Your task to perform on an android device: turn on data saver in the chrome app Image 0: 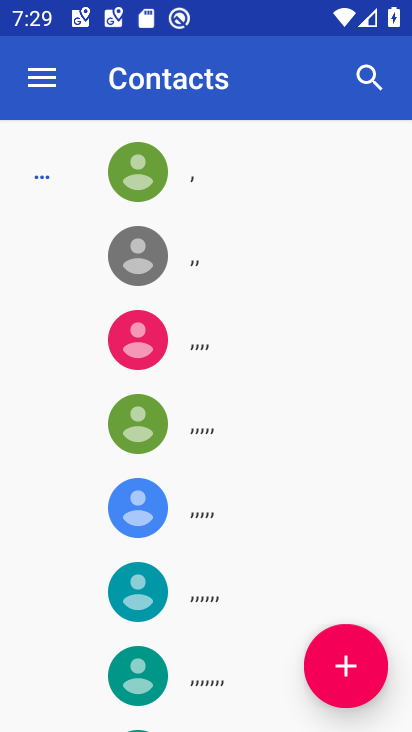
Step 0: press home button
Your task to perform on an android device: turn on data saver in the chrome app Image 1: 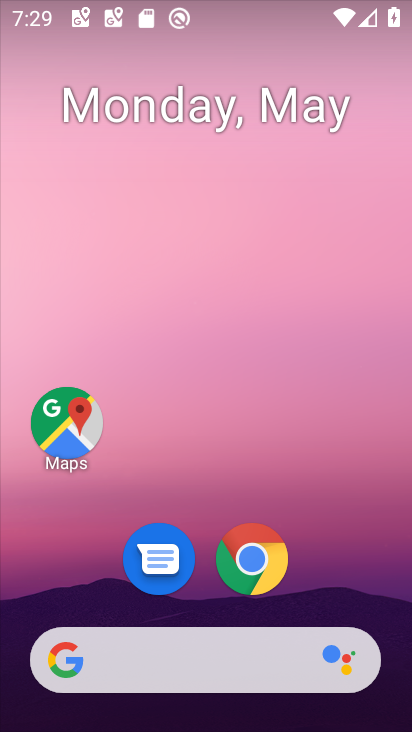
Step 1: drag from (388, 636) to (367, 159)
Your task to perform on an android device: turn on data saver in the chrome app Image 2: 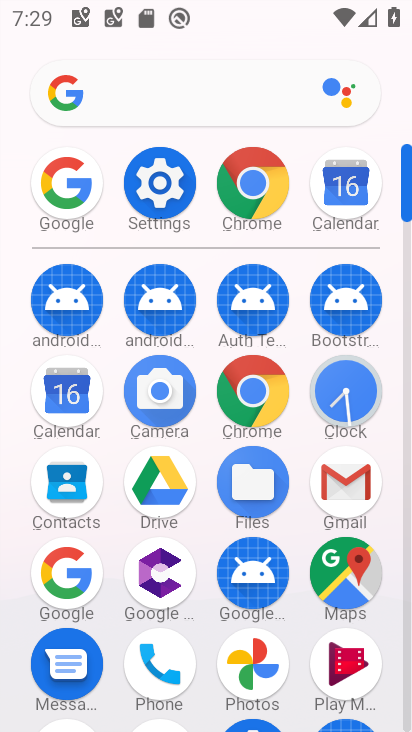
Step 2: click (243, 174)
Your task to perform on an android device: turn on data saver in the chrome app Image 3: 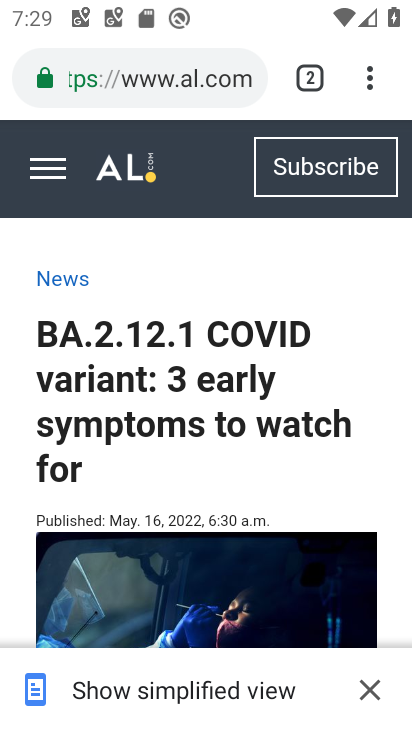
Step 3: press back button
Your task to perform on an android device: turn on data saver in the chrome app Image 4: 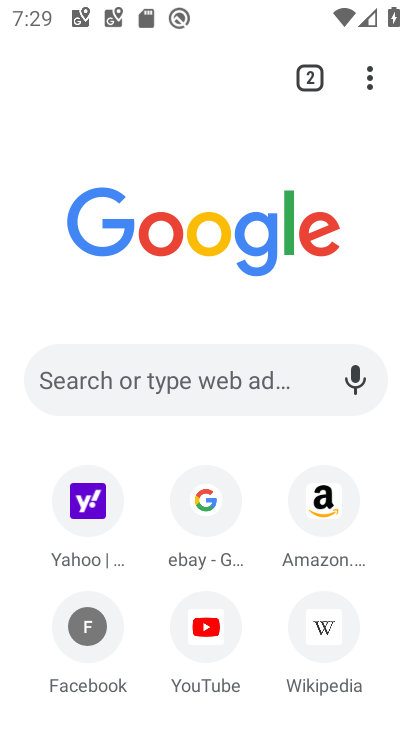
Step 4: click (367, 61)
Your task to perform on an android device: turn on data saver in the chrome app Image 5: 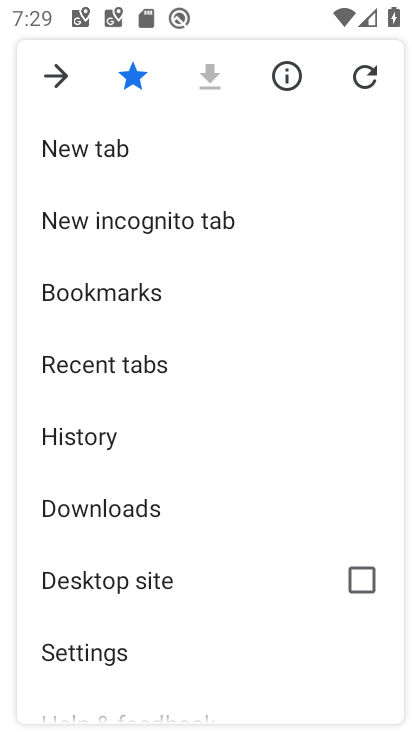
Step 5: click (86, 654)
Your task to perform on an android device: turn on data saver in the chrome app Image 6: 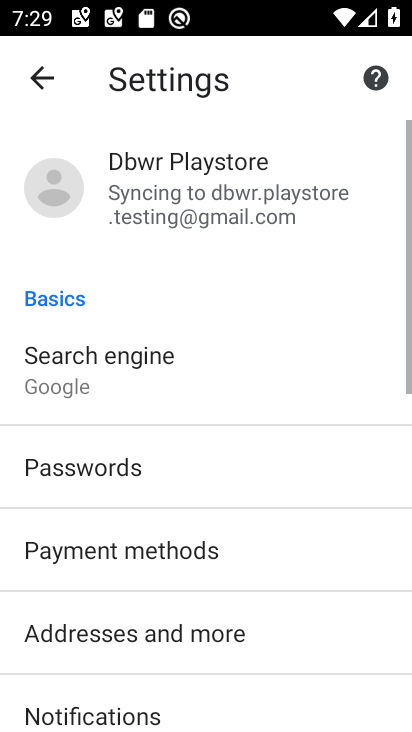
Step 6: drag from (86, 654) to (144, 100)
Your task to perform on an android device: turn on data saver in the chrome app Image 7: 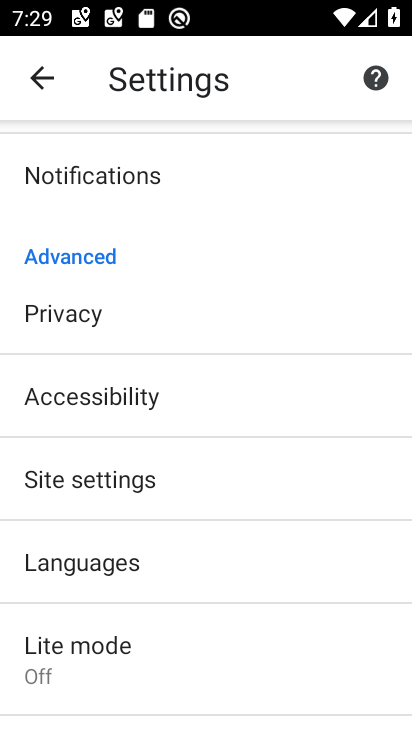
Step 7: click (108, 667)
Your task to perform on an android device: turn on data saver in the chrome app Image 8: 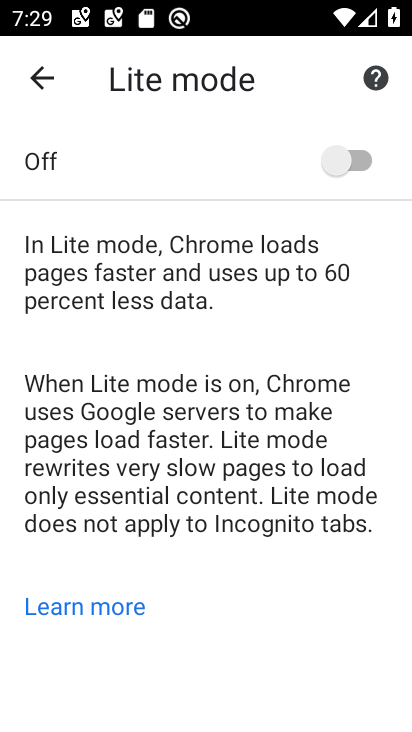
Step 8: click (375, 159)
Your task to perform on an android device: turn on data saver in the chrome app Image 9: 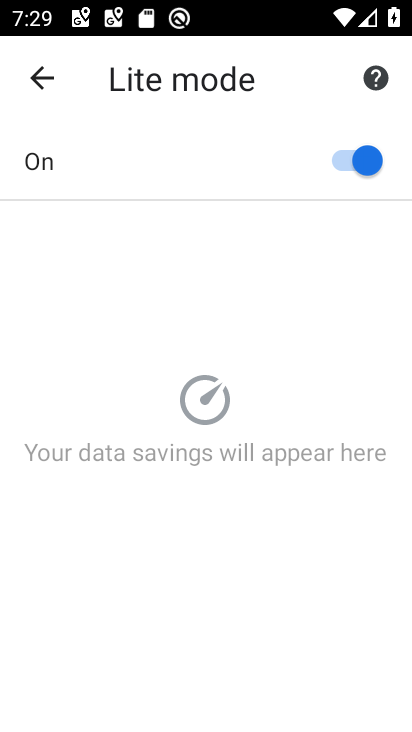
Step 9: task complete